Your task to perform on an android device: turn on showing notifications on the lock screen Image 0: 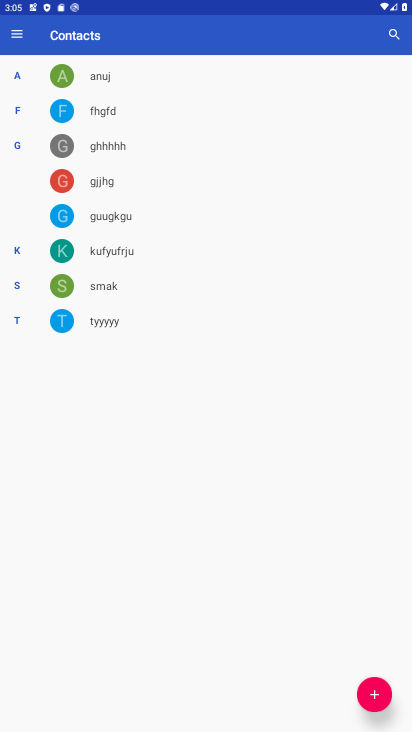
Step 0: press home button
Your task to perform on an android device: turn on showing notifications on the lock screen Image 1: 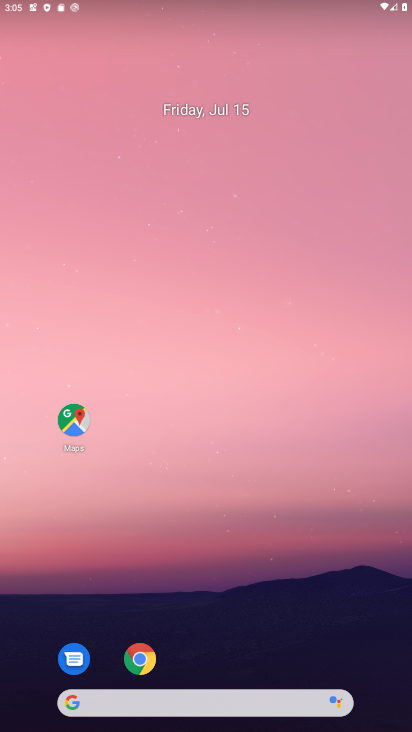
Step 1: drag from (184, 635) to (166, 292)
Your task to perform on an android device: turn on showing notifications on the lock screen Image 2: 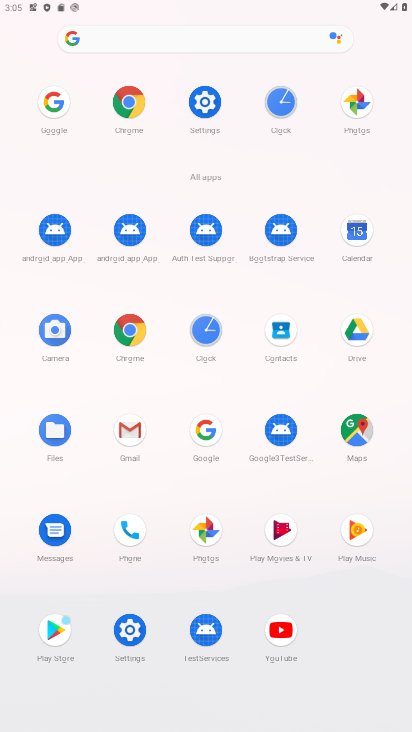
Step 2: click (203, 99)
Your task to perform on an android device: turn on showing notifications on the lock screen Image 3: 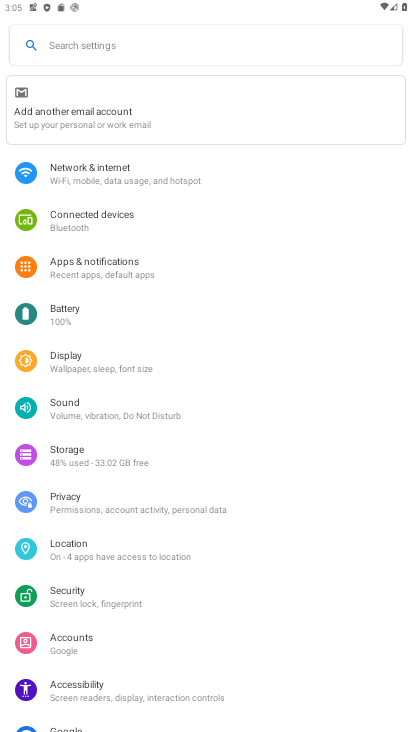
Step 3: click (53, 484)
Your task to perform on an android device: turn on showing notifications on the lock screen Image 4: 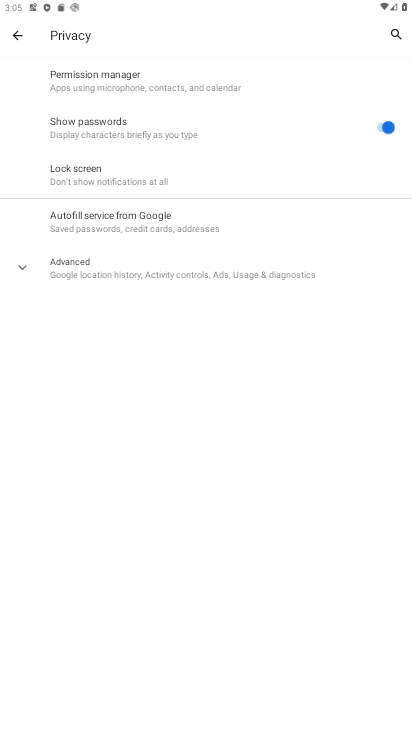
Step 4: click (91, 262)
Your task to perform on an android device: turn on showing notifications on the lock screen Image 5: 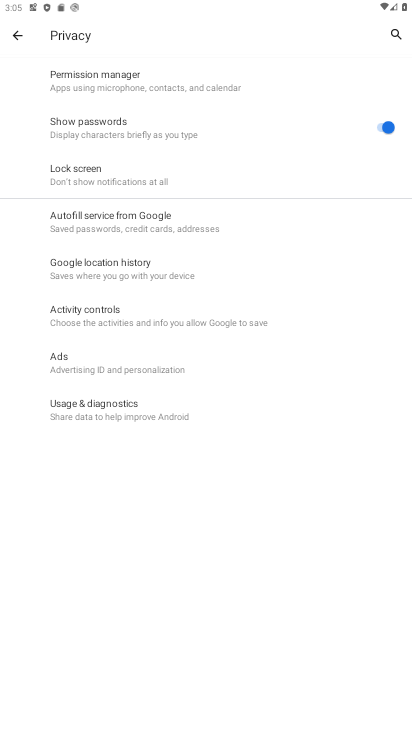
Step 5: click (85, 181)
Your task to perform on an android device: turn on showing notifications on the lock screen Image 6: 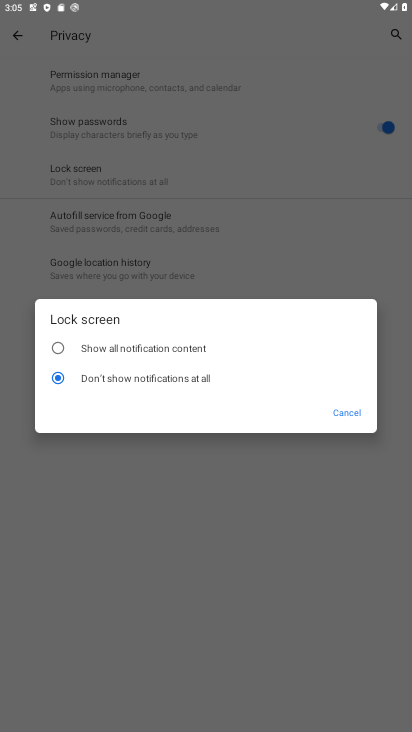
Step 6: click (112, 341)
Your task to perform on an android device: turn on showing notifications on the lock screen Image 7: 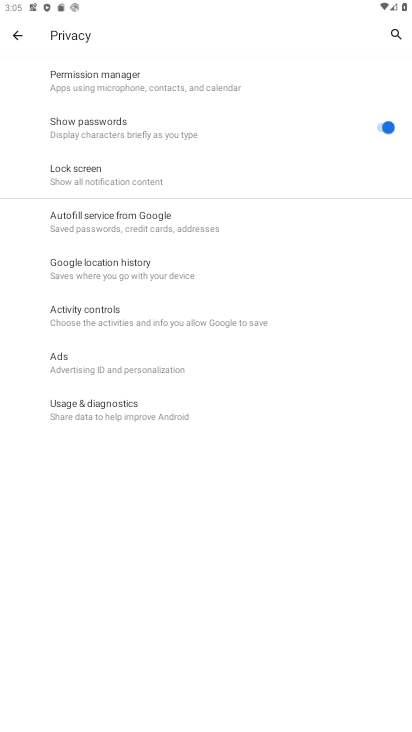
Step 7: task complete